Your task to perform on an android device: visit the assistant section in the google photos Image 0: 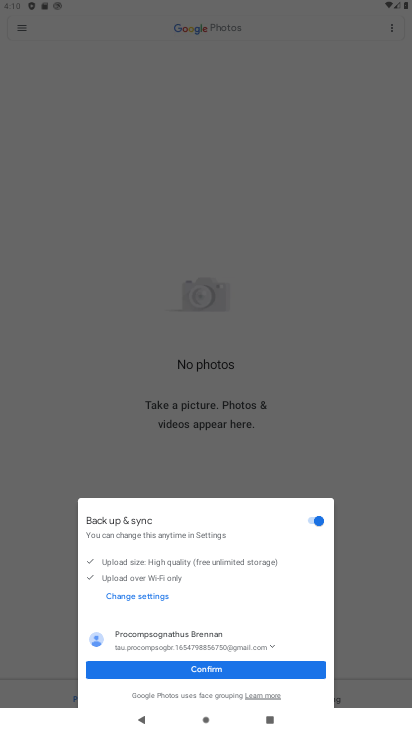
Step 0: press home button
Your task to perform on an android device: visit the assistant section in the google photos Image 1: 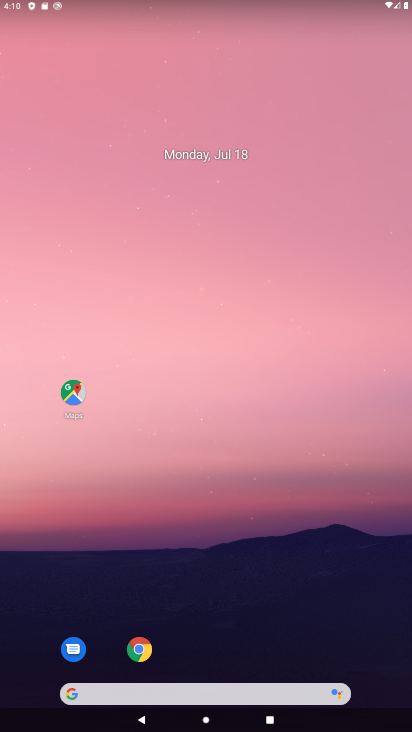
Step 1: drag from (265, 658) to (237, 181)
Your task to perform on an android device: visit the assistant section in the google photos Image 2: 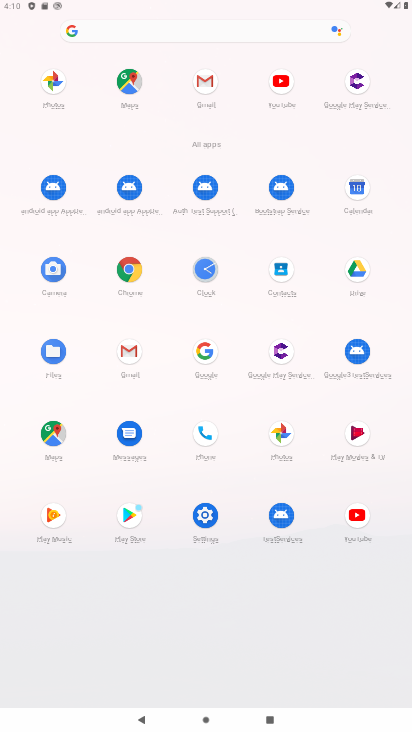
Step 2: click (290, 431)
Your task to perform on an android device: visit the assistant section in the google photos Image 3: 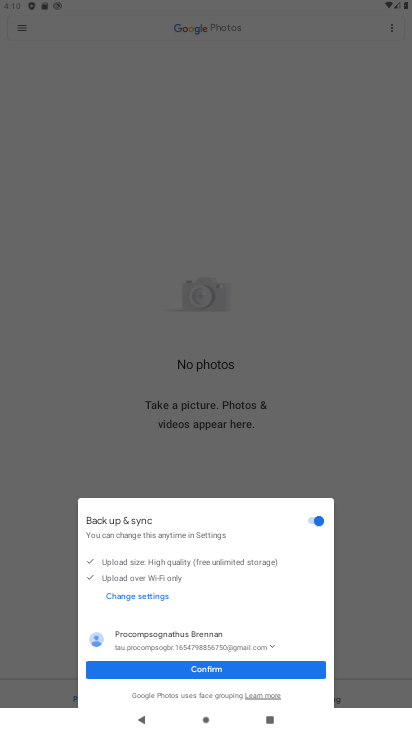
Step 3: click (179, 678)
Your task to perform on an android device: visit the assistant section in the google photos Image 4: 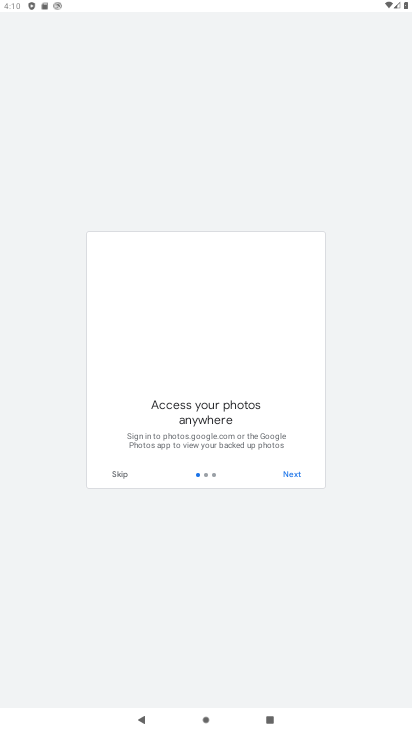
Step 4: click (280, 474)
Your task to perform on an android device: visit the assistant section in the google photos Image 5: 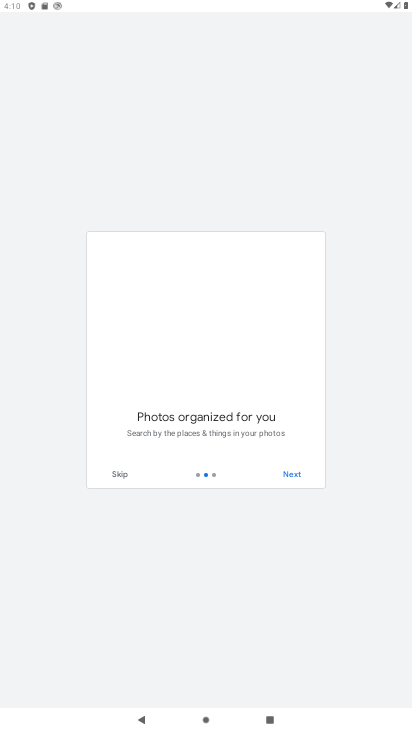
Step 5: click (280, 474)
Your task to perform on an android device: visit the assistant section in the google photos Image 6: 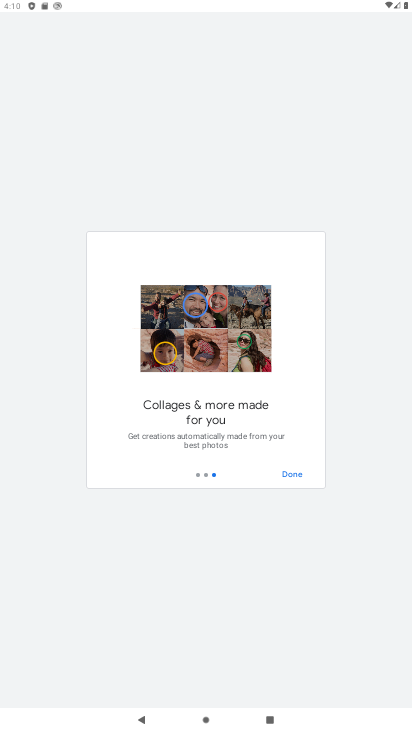
Step 6: click (280, 474)
Your task to perform on an android device: visit the assistant section in the google photos Image 7: 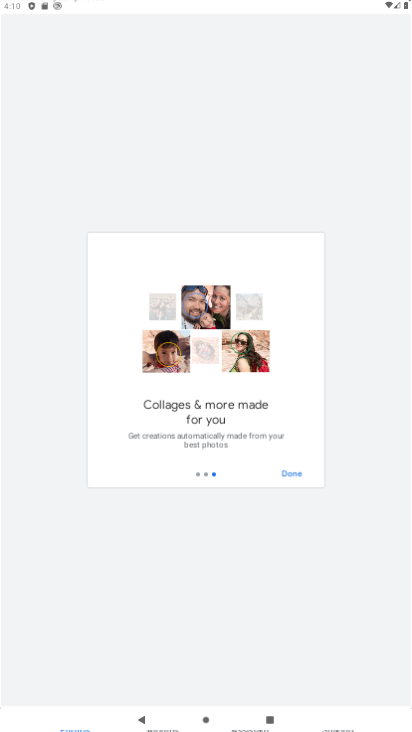
Step 7: click (280, 474)
Your task to perform on an android device: visit the assistant section in the google photos Image 8: 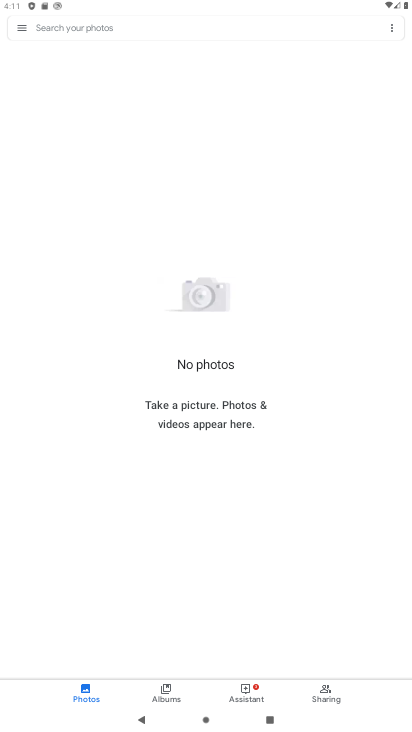
Step 8: click (243, 702)
Your task to perform on an android device: visit the assistant section in the google photos Image 9: 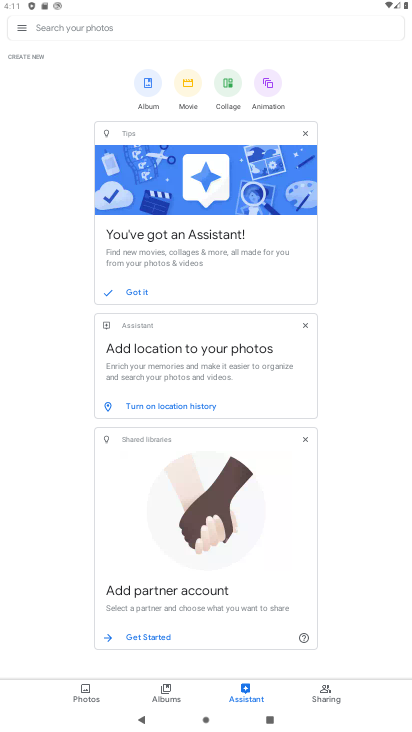
Step 9: task complete